Your task to perform on an android device: Is it going to rain tomorrow? Image 0: 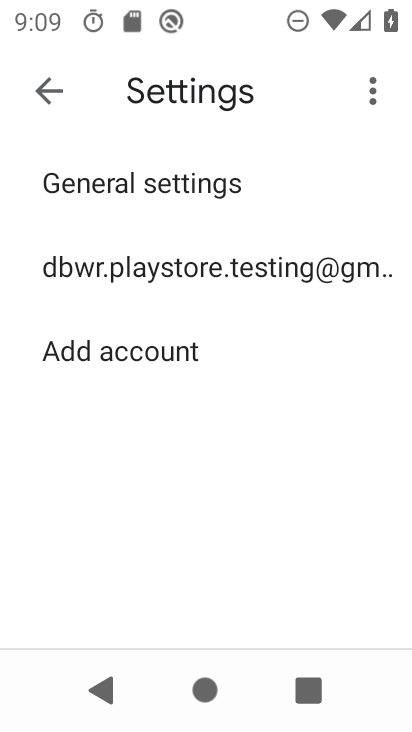
Step 0: press home button
Your task to perform on an android device: Is it going to rain tomorrow? Image 1: 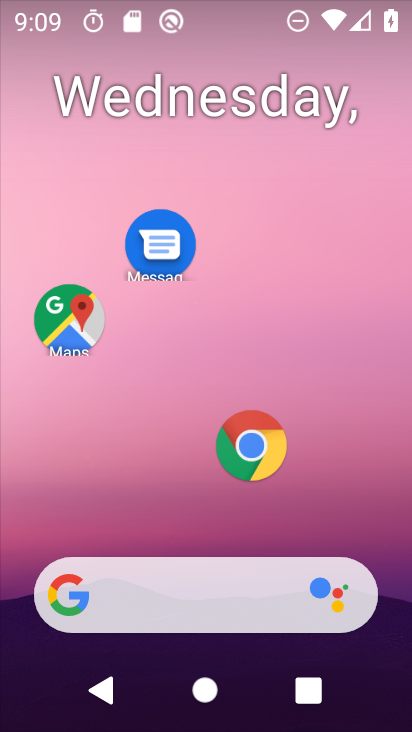
Step 1: drag from (3, 187) to (358, 194)
Your task to perform on an android device: Is it going to rain tomorrow? Image 2: 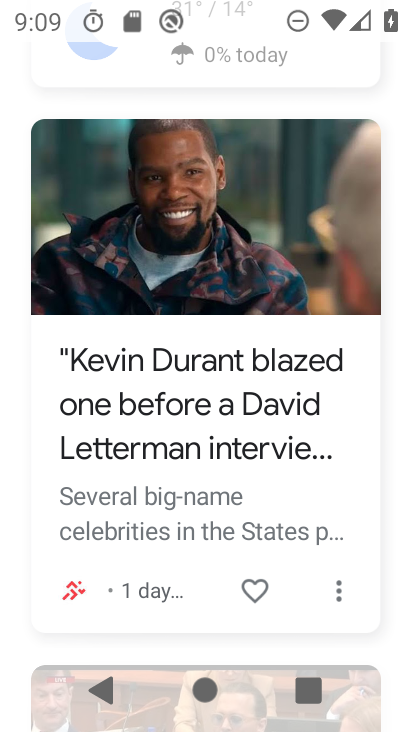
Step 2: click (215, 55)
Your task to perform on an android device: Is it going to rain tomorrow? Image 3: 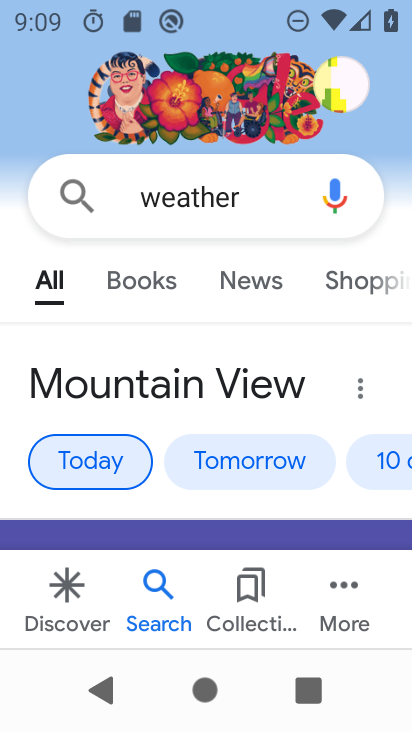
Step 3: click (258, 468)
Your task to perform on an android device: Is it going to rain tomorrow? Image 4: 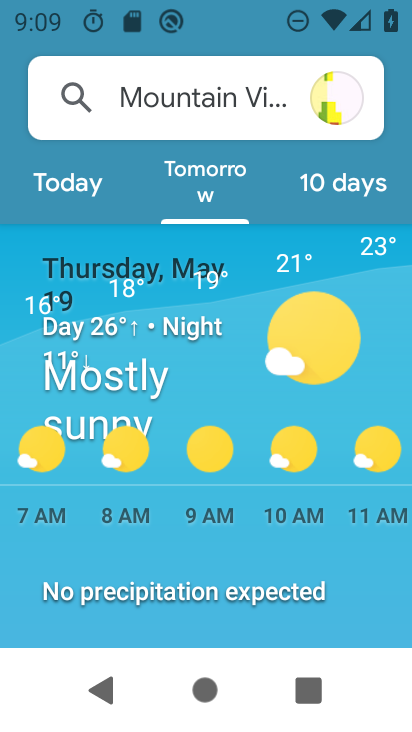
Step 4: task complete